Your task to perform on an android device: Go to Reddit.com Image 0: 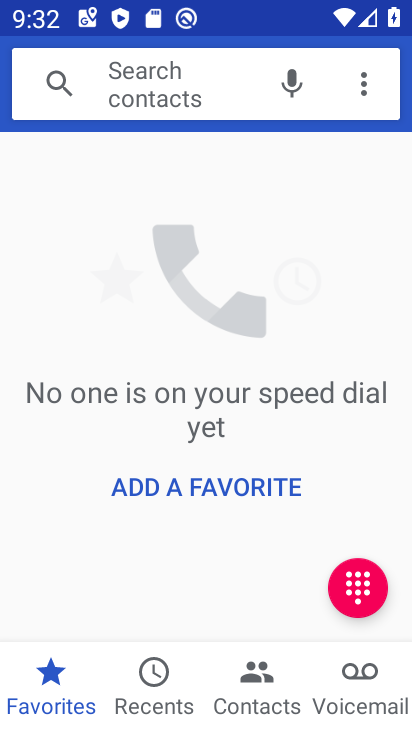
Step 0: press back button
Your task to perform on an android device: Go to Reddit.com Image 1: 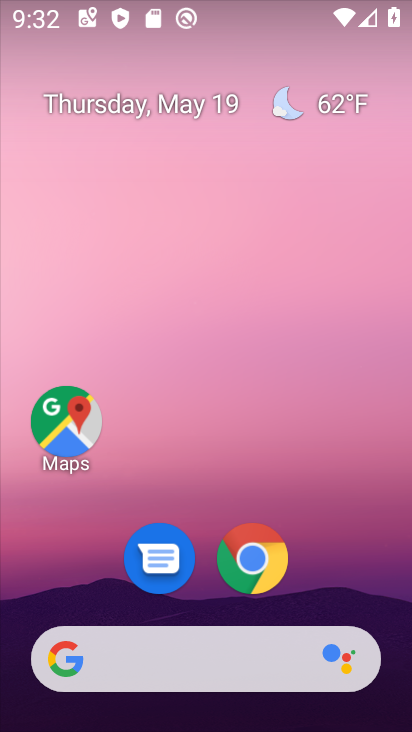
Step 1: click (254, 557)
Your task to perform on an android device: Go to Reddit.com Image 2: 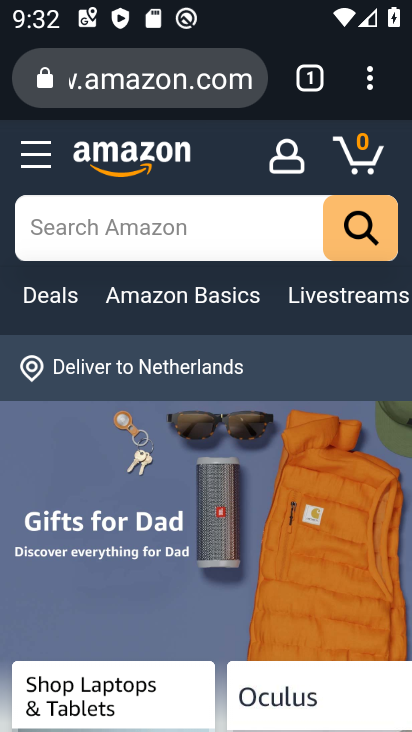
Step 2: click (226, 76)
Your task to perform on an android device: Go to Reddit.com Image 3: 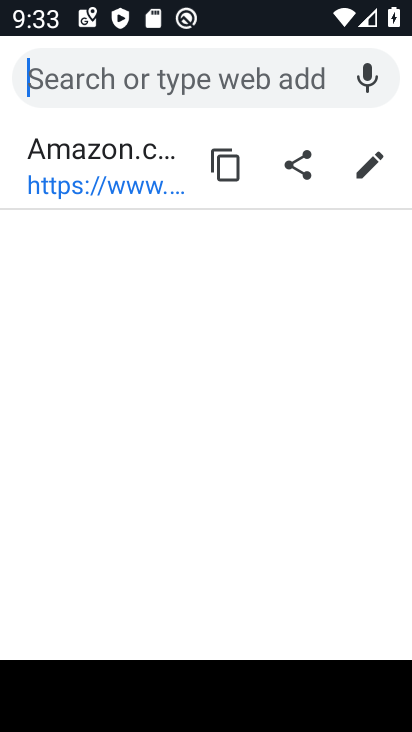
Step 3: type "Reddit.com"
Your task to perform on an android device: Go to Reddit.com Image 4: 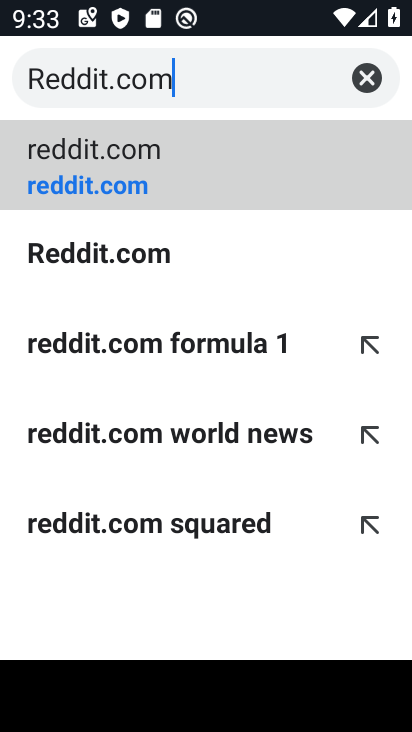
Step 4: click (138, 258)
Your task to perform on an android device: Go to Reddit.com Image 5: 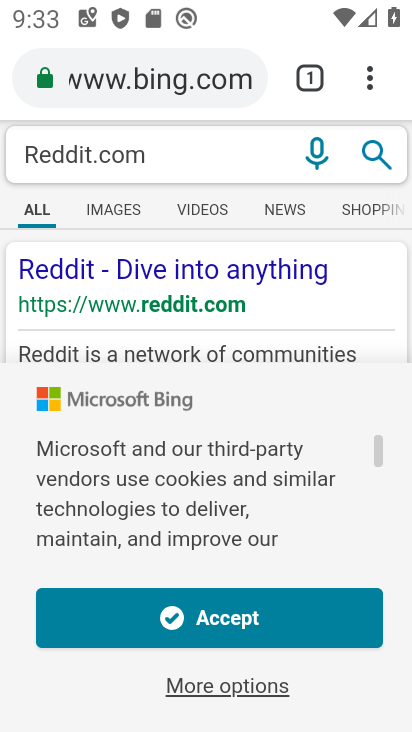
Step 5: click (186, 276)
Your task to perform on an android device: Go to Reddit.com Image 6: 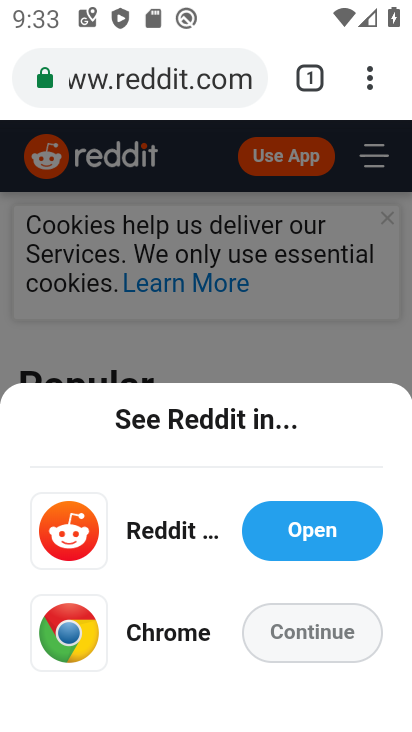
Step 6: click (308, 633)
Your task to perform on an android device: Go to Reddit.com Image 7: 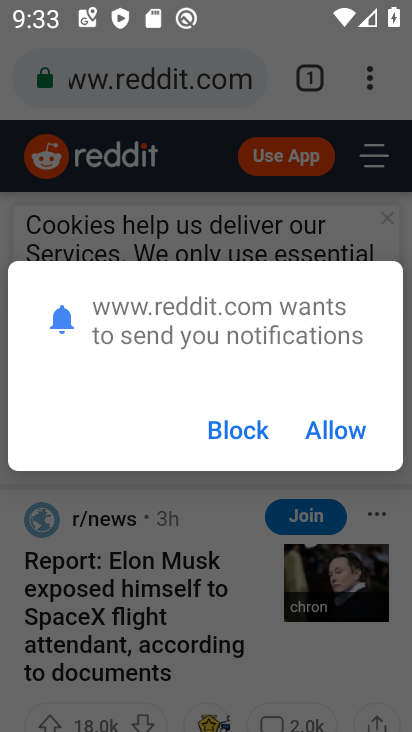
Step 7: click (353, 426)
Your task to perform on an android device: Go to Reddit.com Image 8: 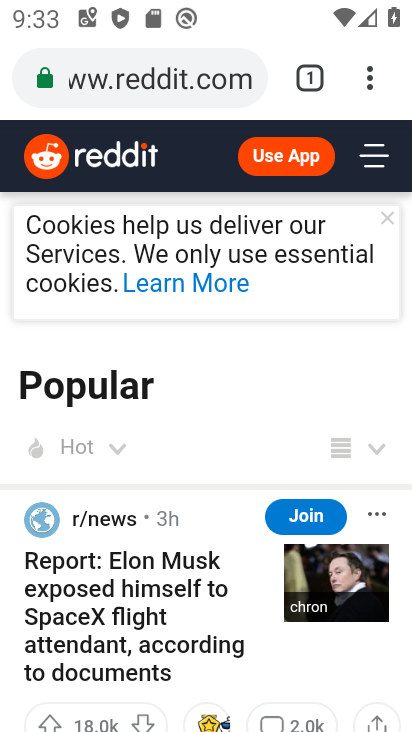
Step 8: task complete